Your task to perform on an android device: Is it going to rain tomorrow? Image 0: 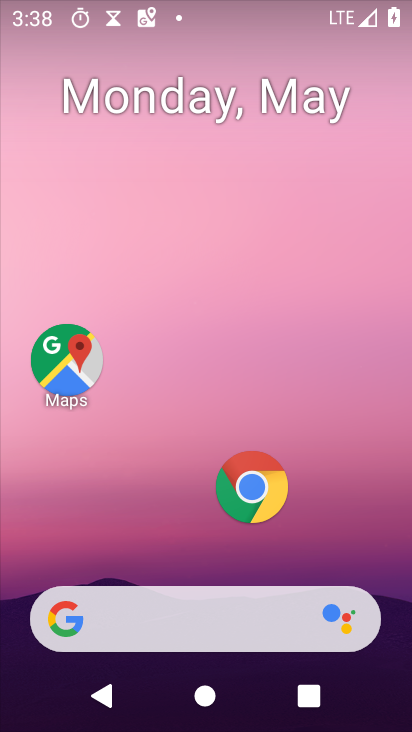
Step 0: click (147, 611)
Your task to perform on an android device: Is it going to rain tomorrow? Image 1: 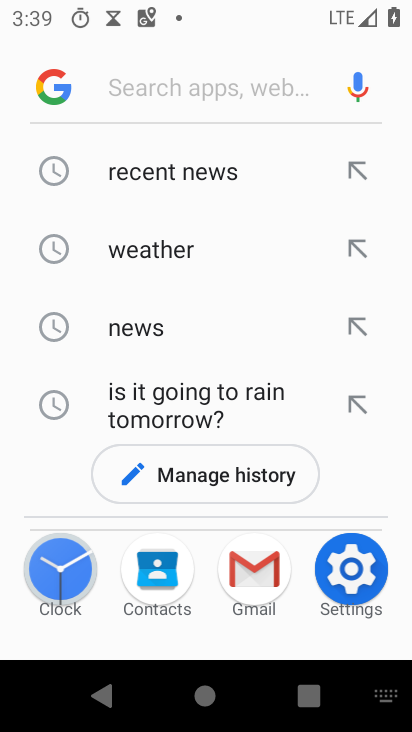
Step 1: type "is it going to rain tomorrow"
Your task to perform on an android device: Is it going to rain tomorrow? Image 2: 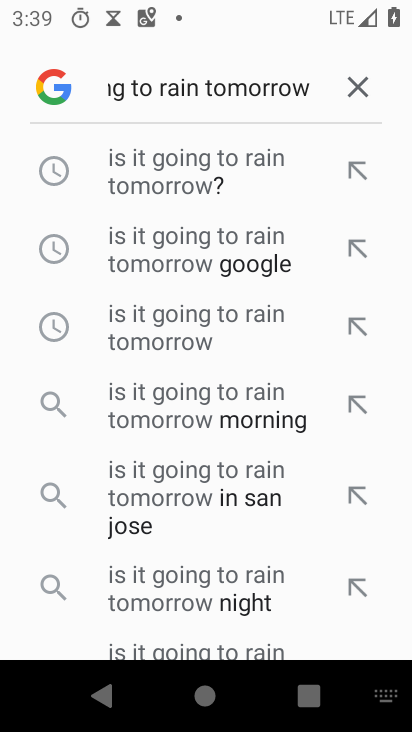
Step 2: click (256, 182)
Your task to perform on an android device: Is it going to rain tomorrow? Image 3: 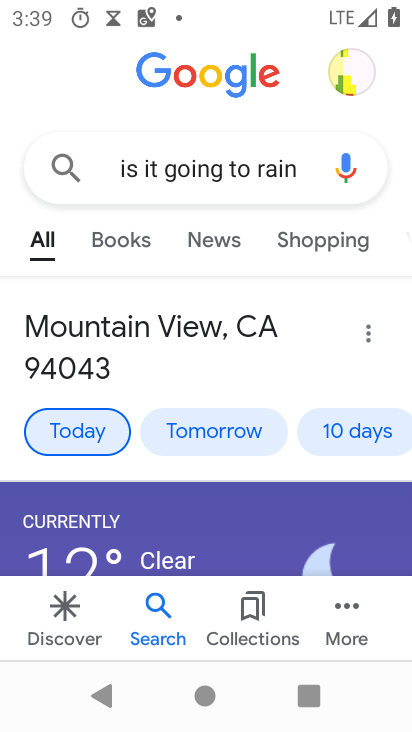
Step 3: drag from (122, 545) to (205, 191)
Your task to perform on an android device: Is it going to rain tomorrow? Image 4: 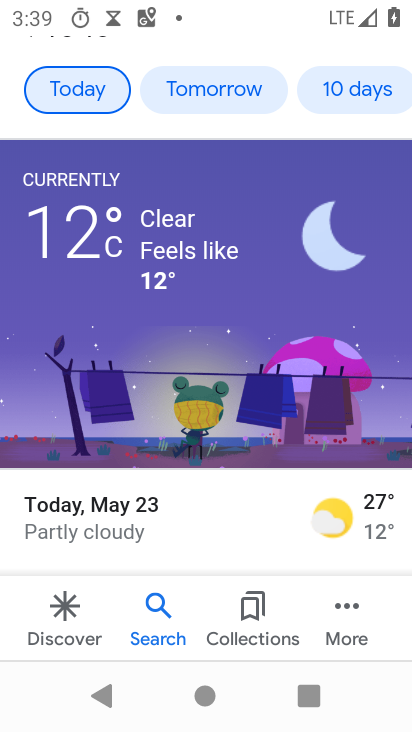
Step 4: click (201, 84)
Your task to perform on an android device: Is it going to rain tomorrow? Image 5: 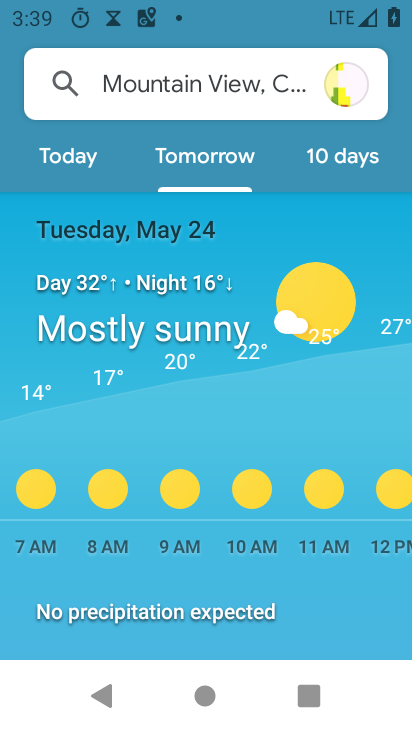
Step 5: task complete